Your task to perform on an android device: Look up the best rated gaming chairs on Target. Image 0: 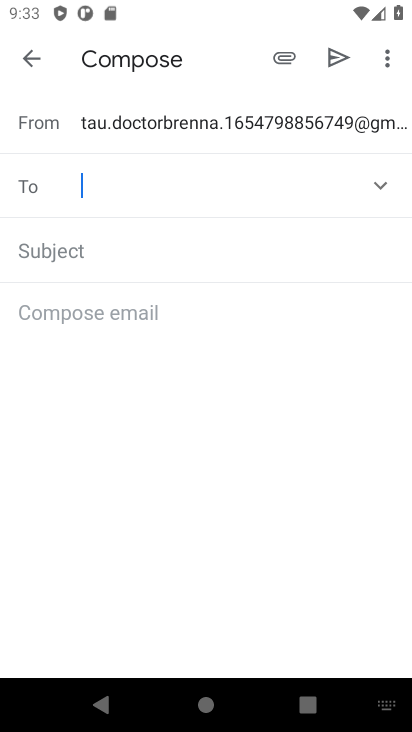
Step 0: press home button
Your task to perform on an android device: Look up the best rated gaming chairs on Target. Image 1: 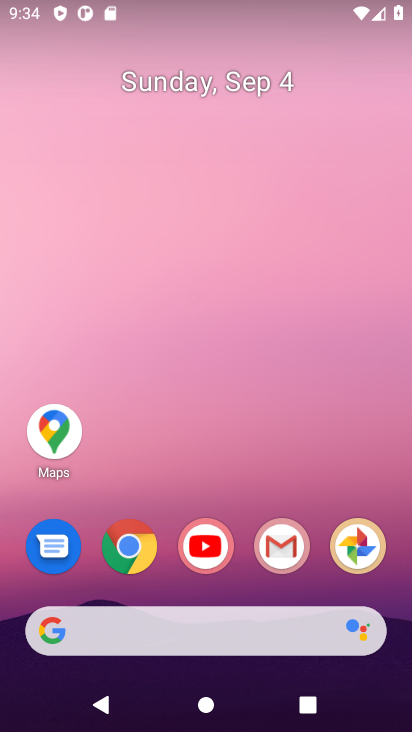
Step 1: click (128, 552)
Your task to perform on an android device: Look up the best rated gaming chairs on Target. Image 2: 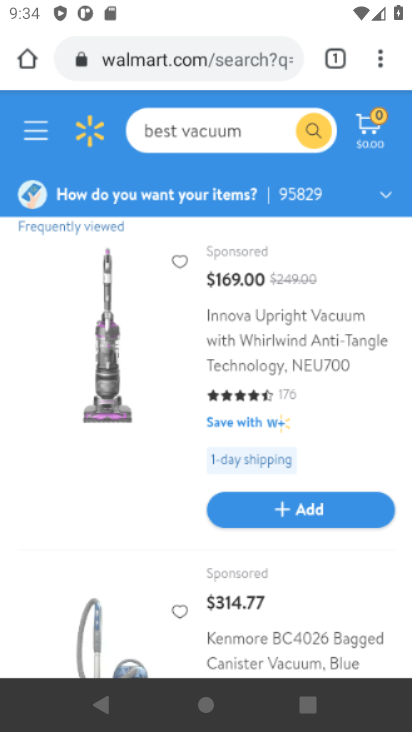
Step 2: click (185, 55)
Your task to perform on an android device: Look up the best rated gaming chairs on Target. Image 3: 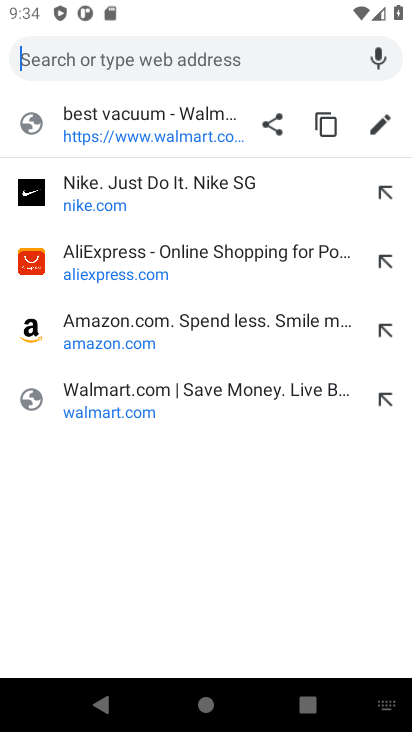
Step 3: type "Target"
Your task to perform on an android device: Look up the best rated gaming chairs on Target. Image 4: 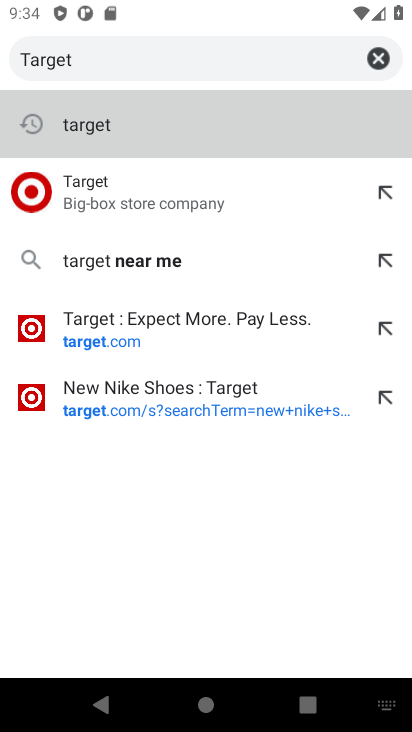
Step 4: click (109, 201)
Your task to perform on an android device: Look up the best rated gaming chairs on Target. Image 5: 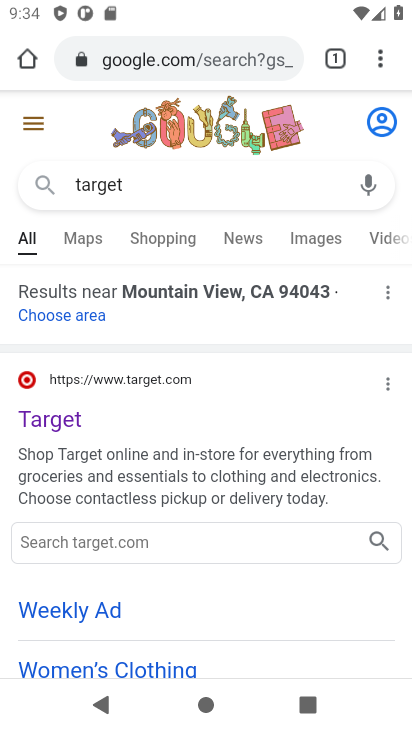
Step 5: click (51, 425)
Your task to perform on an android device: Look up the best rated gaming chairs on Target. Image 6: 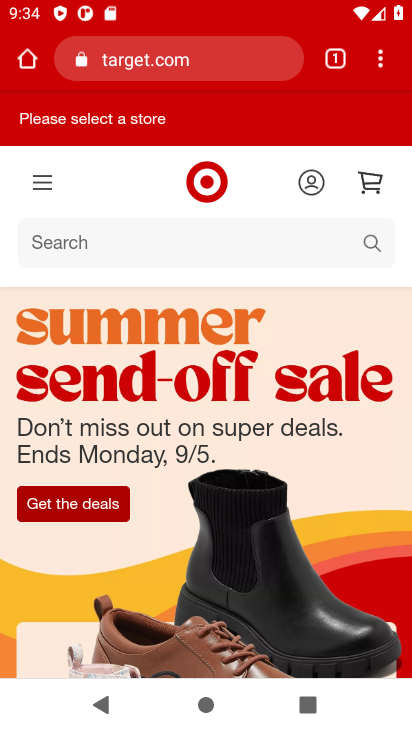
Step 6: click (368, 246)
Your task to perform on an android device: Look up the best rated gaming chairs on Target. Image 7: 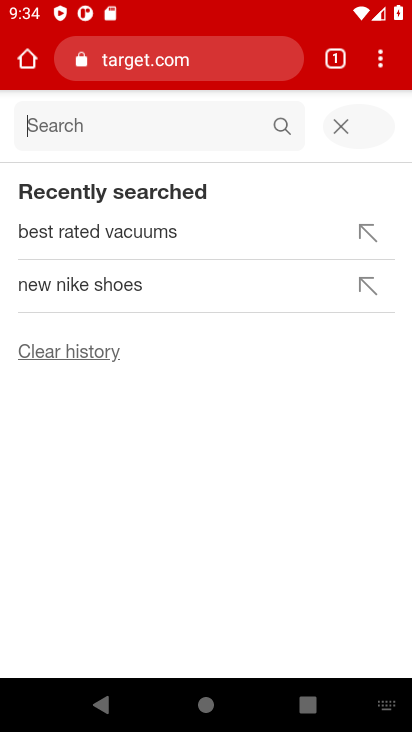
Step 7: click (55, 126)
Your task to perform on an android device: Look up the best rated gaming chairs on Target. Image 8: 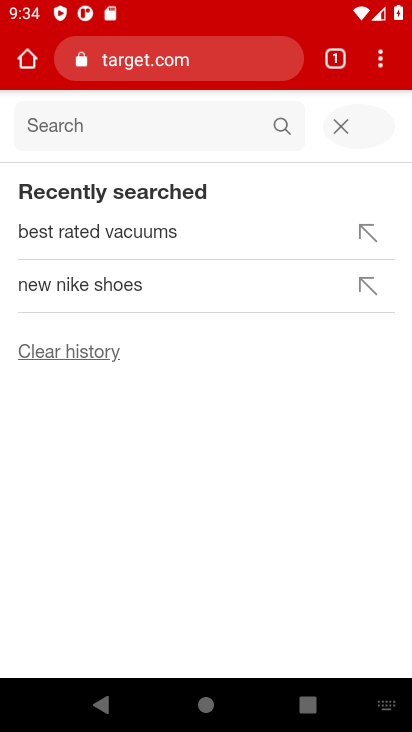
Step 8: type "best rated gaming chairs"
Your task to perform on an android device: Look up the best rated gaming chairs on Target. Image 9: 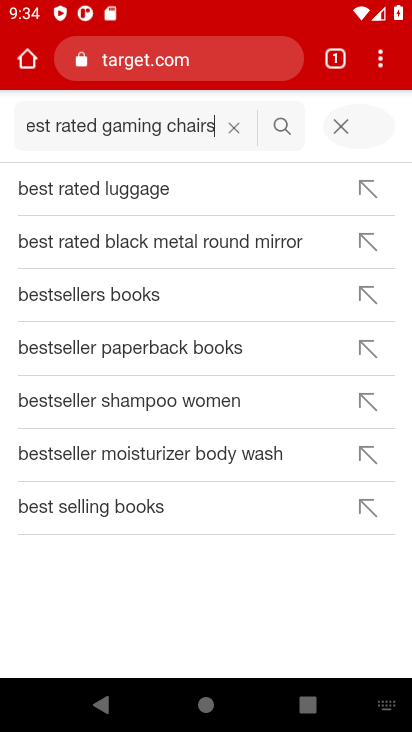
Step 9: click (280, 127)
Your task to perform on an android device: Look up the best rated gaming chairs on Target. Image 10: 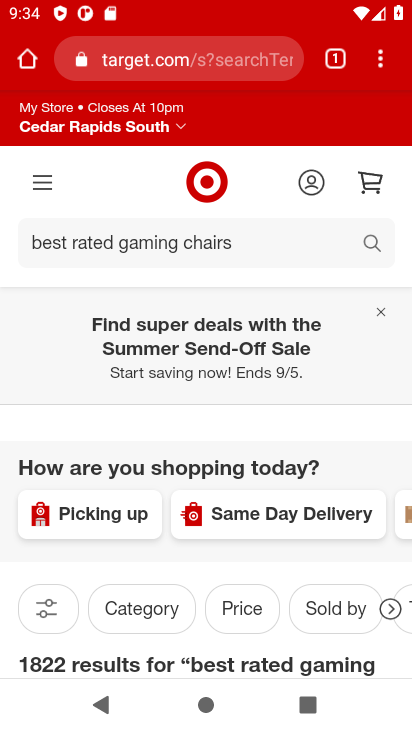
Step 10: task complete